Your task to perform on an android device: change your default location settings in chrome Image 0: 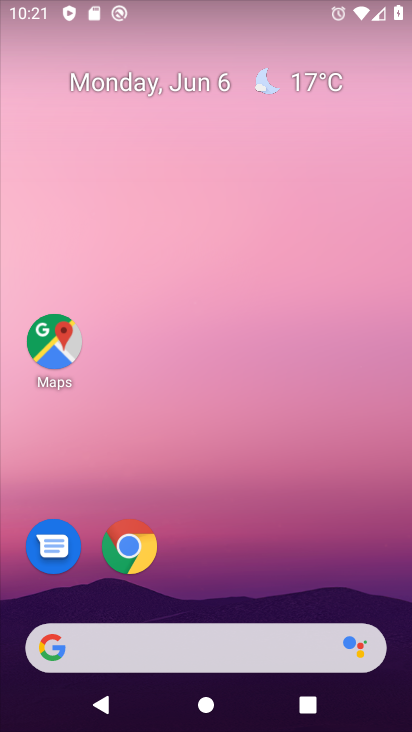
Step 0: click (129, 552)
Your task to perform on an android device: change your default location settings in chrome Image 1: 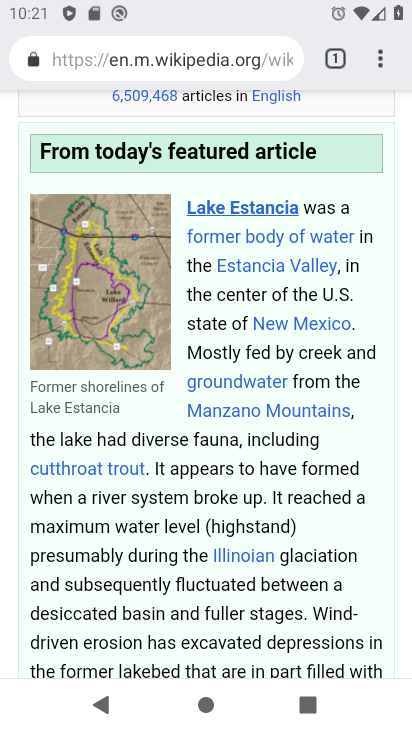
Step 1: click (380, 62)
Your task to perform on an android device: change your default location settings in chrome Image 2: 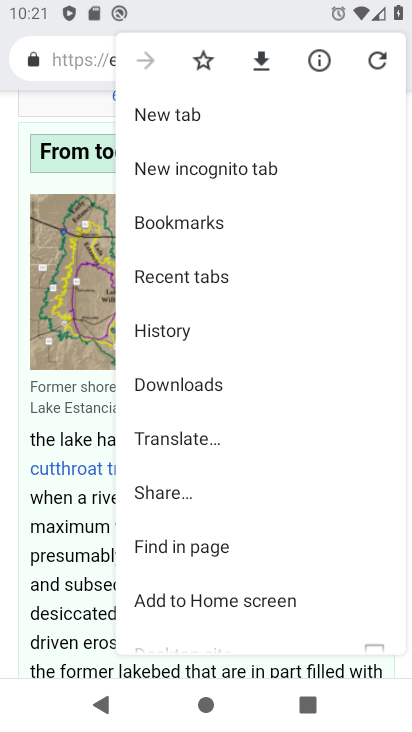
Step 2: drag from (231, 559) to (297, 233)
Your task to perform on an android device: change your default location settings in chrome Image 3: 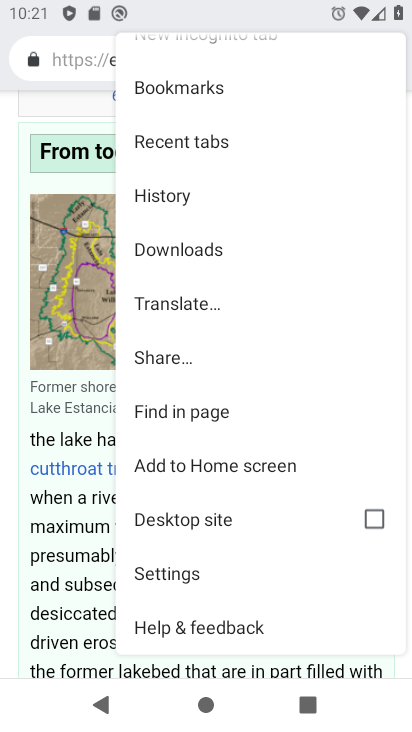
Step 3: click (185, 574)
Your task to perform on an android device: change your default location settings in chrome Image 4: 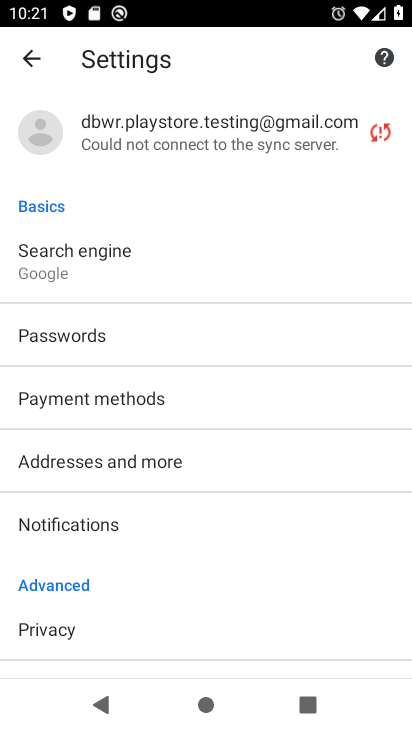
Step 4: drag from (145, 580) to (160, 289)
Your task to perform on an android device: change your default location settings in chrome Image 5: 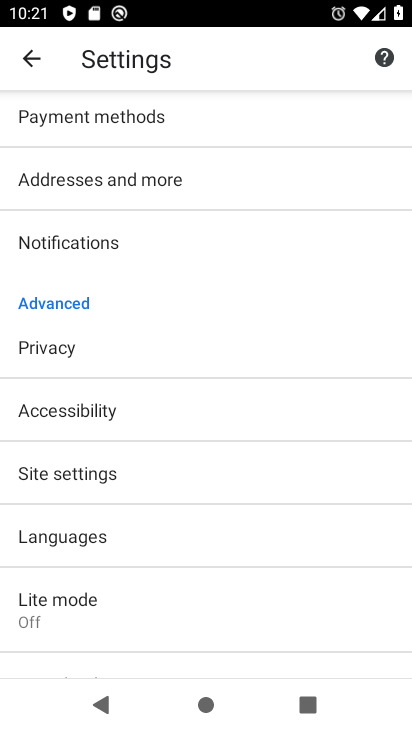
Step 5: click (102, 475)
Your task to perform on an android device: change your default location settings in chrome Image 6: 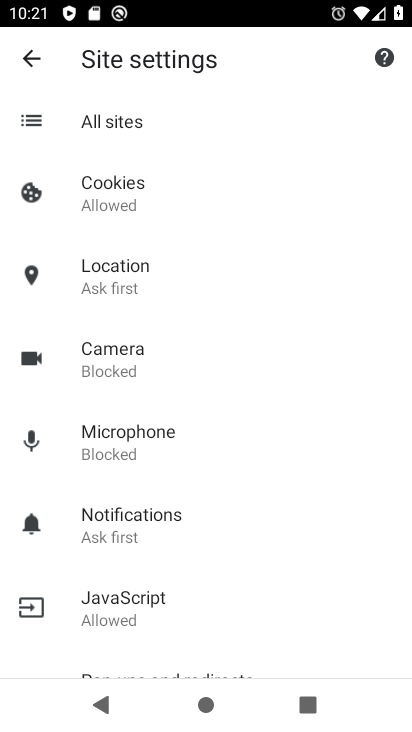
Step 6: drag from (120, 548) to (124, 503)
Your task to perform on an android device: change your default location settings in chrome Image 7: 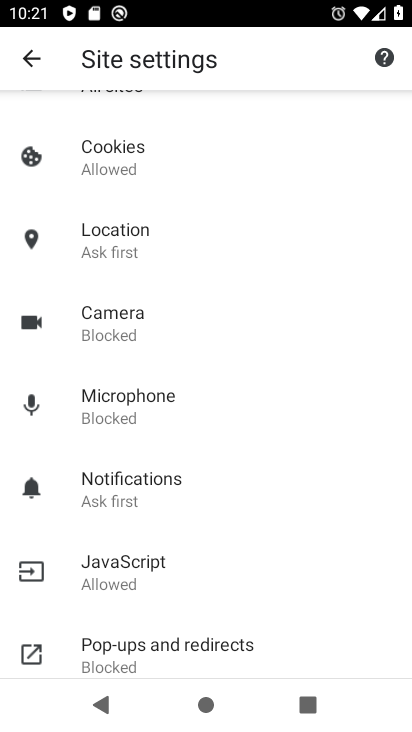
Step 7: click (107, 231)
Your task to perform on an android device: change your default location settings in chrome Image 8: 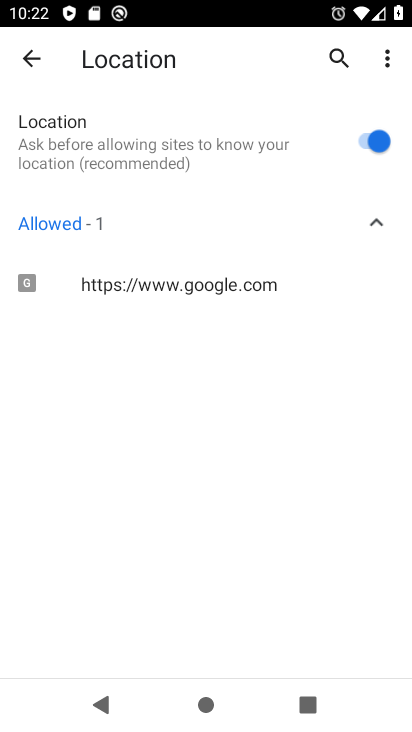
Step 8: click (348, 145)
Your task to perform on an android device: change your default location settings in chrome Image 9: 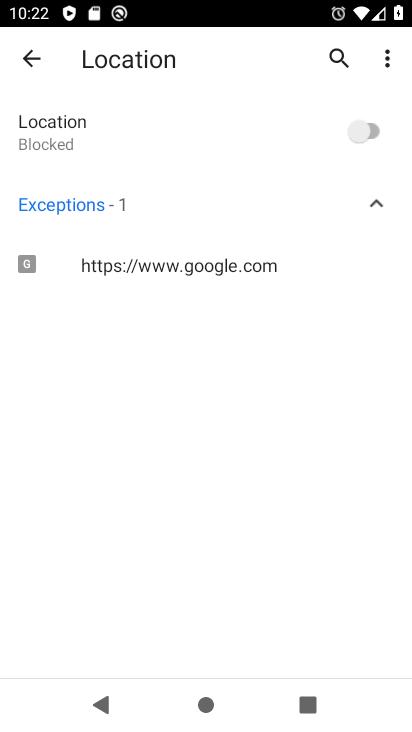
Step 9: task complete